Your task to perform on an android device: turn on notifications settings in the gmail app Image 0: 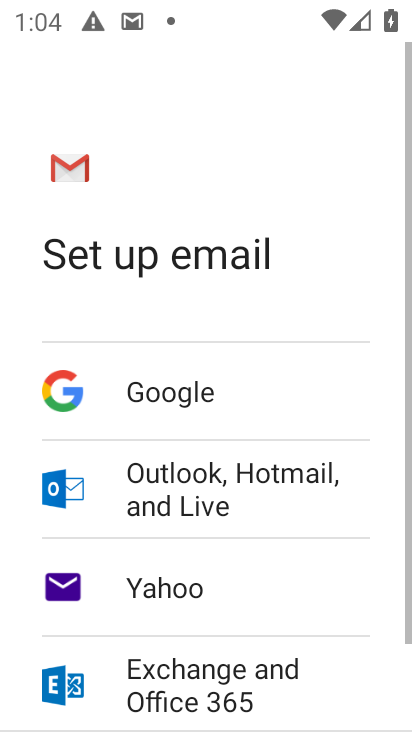
Step 0: press home button
Your task to perform on an android device: turn on notifications settings in the gmail app Image 1: 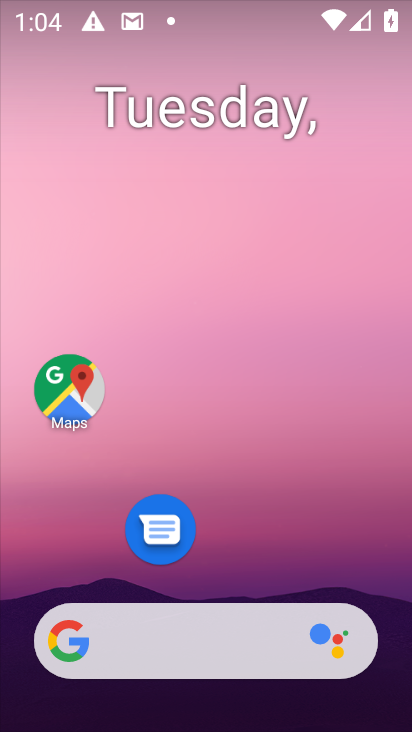
Step 1: drag from (259, 577) to (329, 2)
Your task to perform on an android device: turn on notifications settings in the gmail app Image 2: 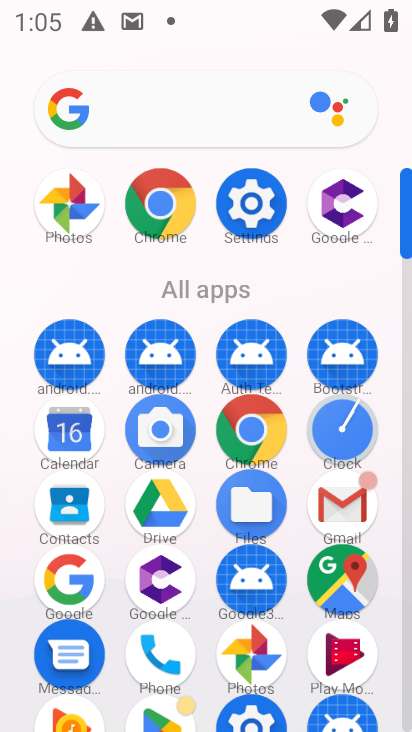
Step 2: click (344, 496)
Your task to perform on an android device: turn on notifications settings in the gmail app Image 3: 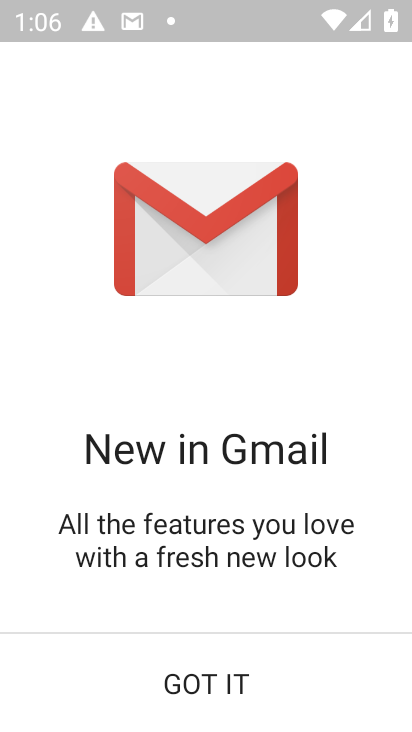
Step 3: click (195, 688)
Your task to perform on an android device: turn on notifications settings in the gmail app Image 4: 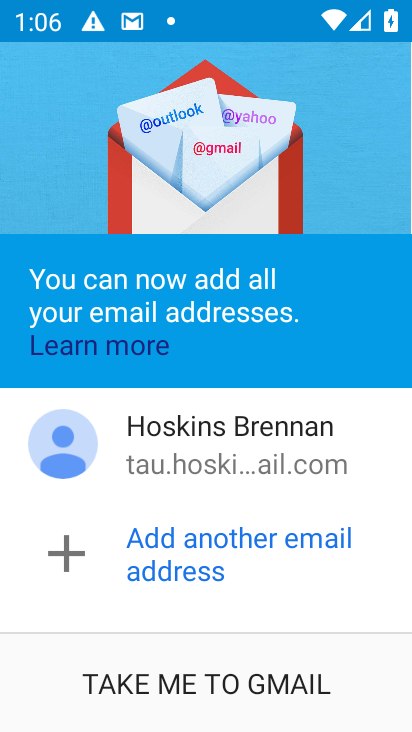
Step 4: click (195, 688)
Your task to perform on an android device: turn on notifications settings in the gmail app Image 5: 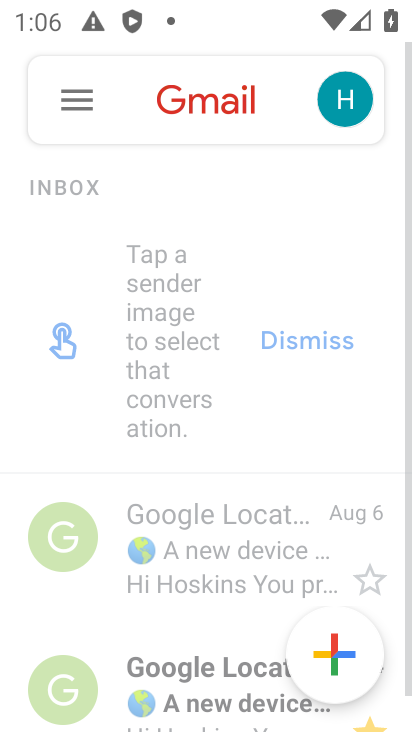
Step 5: click (86, 109)
Your task to perform on an android device: turn on notifications settings in the gmail app Image 6: 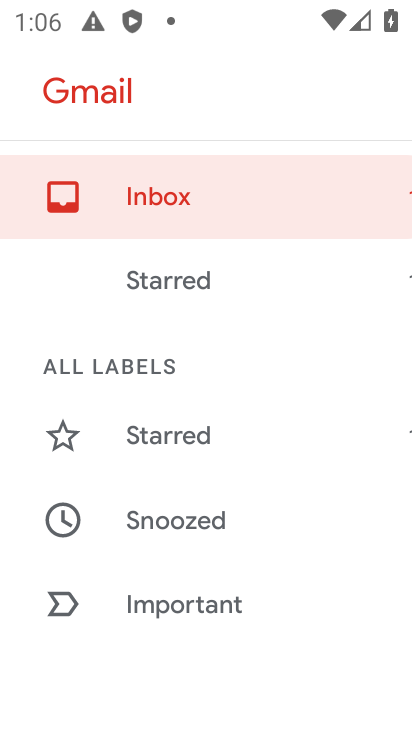
Step 6: task complete